Your task to perform on an android device: What's the weather? Image 0: 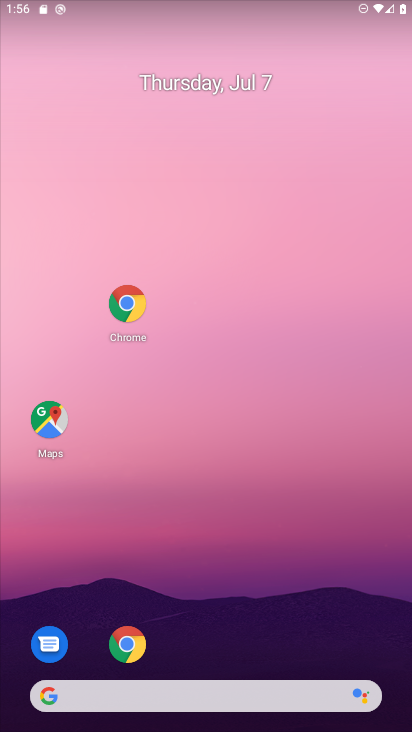
Step 0: drag from (226, 608) to (225, 95)
Your task to perform on an android device: What's the weather? Image 1: 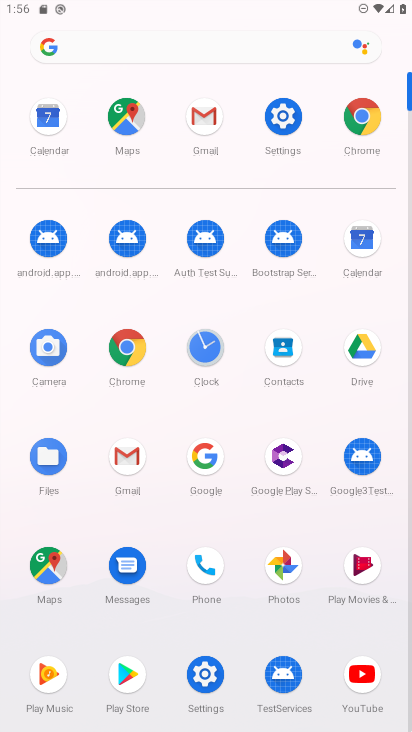
Step 1: click (122, 352)
Your task to perform on an android device: What's the weather? Image 2: 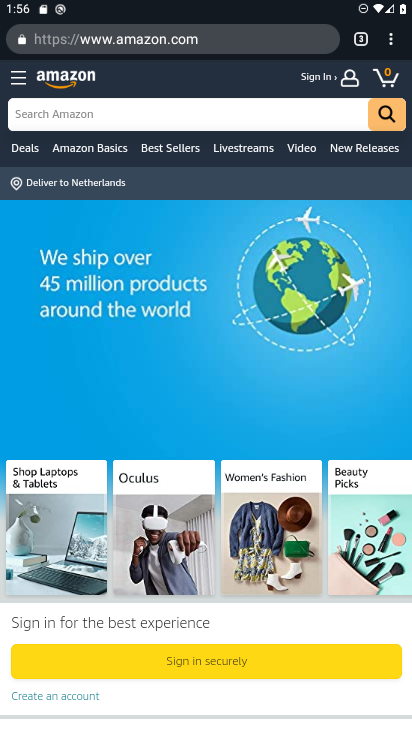
Step 2: click (361, 54)
Your task to perform on an android device: What's the weather? Image 3: 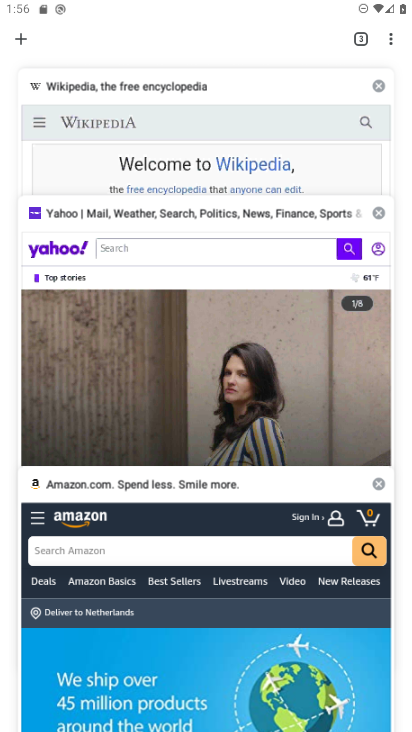
Step 3: click (19, 45)
Your task to perform on an android device: What's the weather? Image 4: 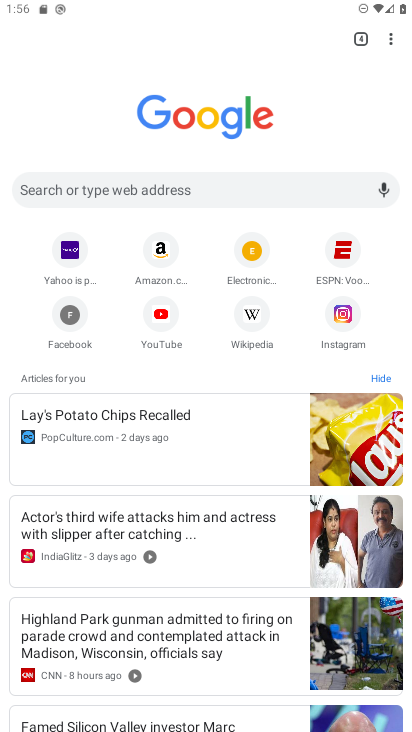
Step 4: click (175, 188)
Your task to perform on an android device: What's the weather? Image 5: 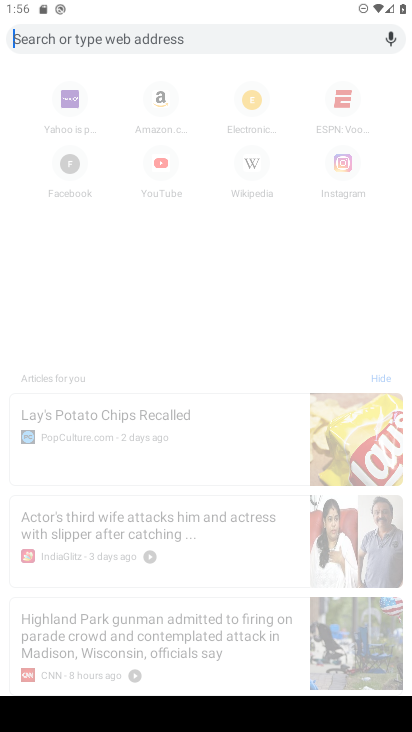
Step 5: type "weather"
Your task to perform on an android device: What's the weather? Image 6: 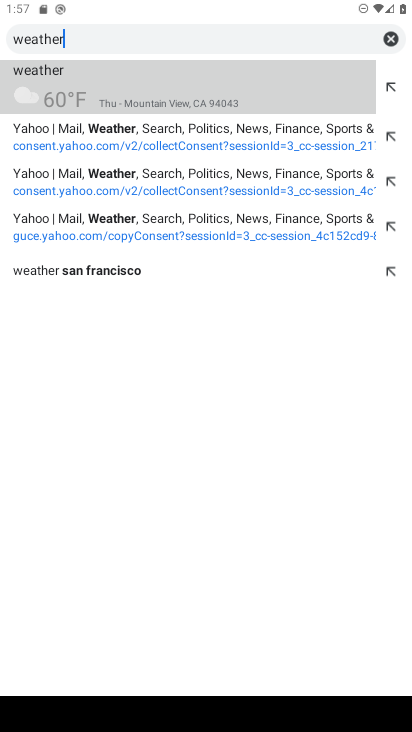
Step 6: click (70, 80)
Your task to perform on an android device: What's the weather? Image 7: 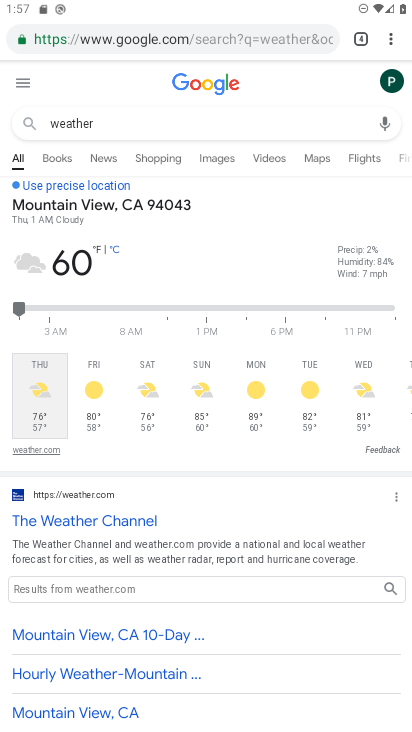
Step 7: click (161, 217)
Your task to perform on an android device: What's the weather? Image 8: 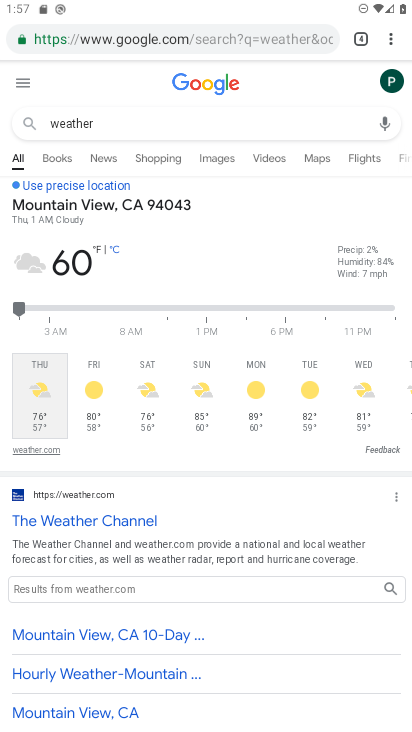
Step 8: click (129, 197)
Your task to perform on an android device: What's the weather? Image 9: 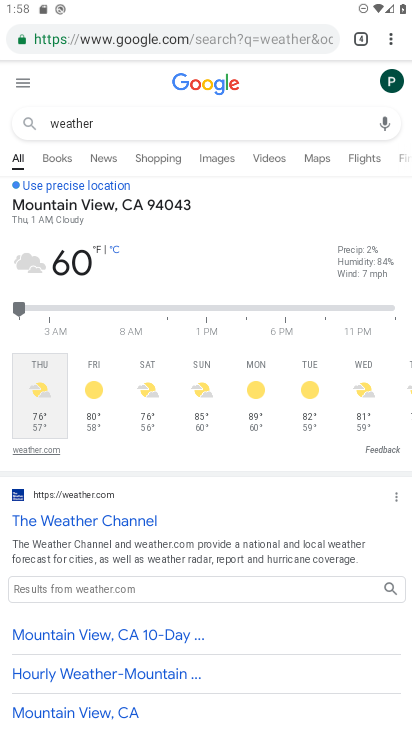
Step 9: task complete